Your task to perform on an android device: find photos in the google photos app Image 0: 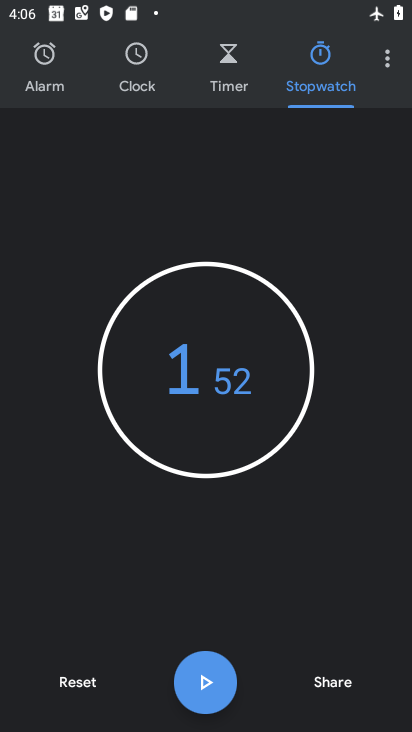
Step 0: press home button
Your task to perform on an android device: find photos in the google photos app Image 1: 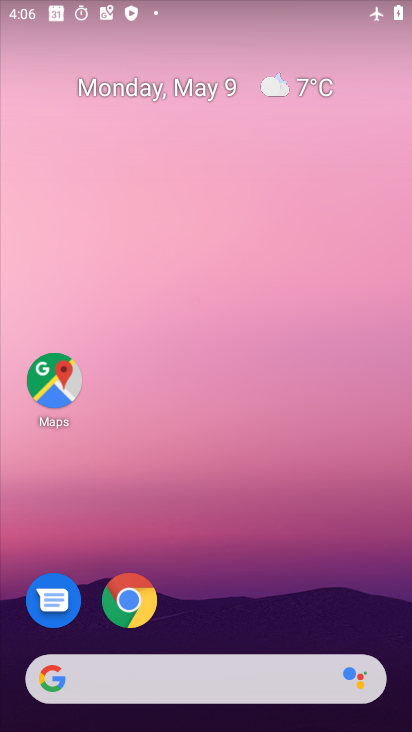
Step 1: drag from (255, 656) to (305, 156)
Your task to perform on an android device: find photos in the google photos app Image 2: 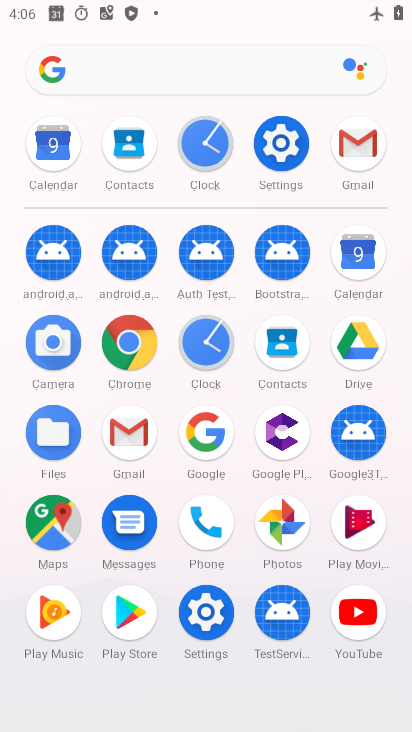
Step 2: click (277, 517)
Your task to perform on an android device: find photos in the google photos app Image 3: 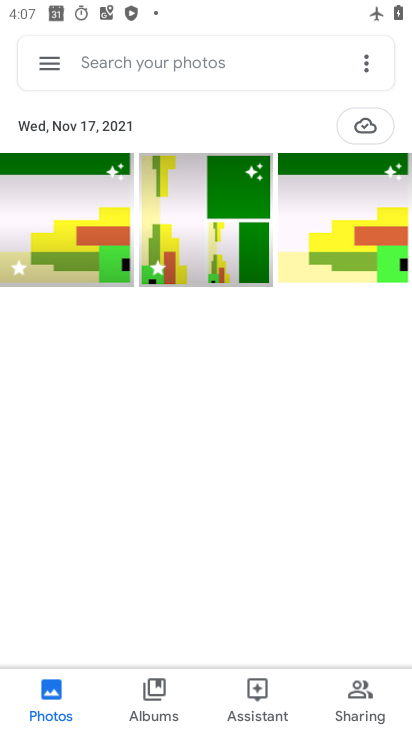
Step 3: click (94, 216)
Your task to perform on an android device: find photos in the google photos app Image 4: 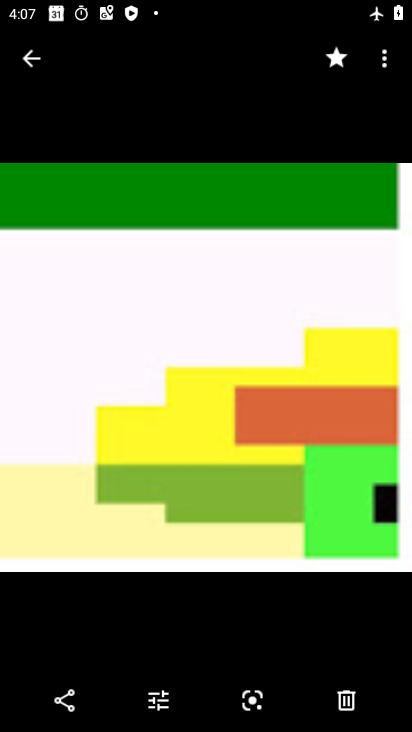
Step 4: task complete